Your task to perform on an android device: Search for Mexican restaurants on Maps Image 0: 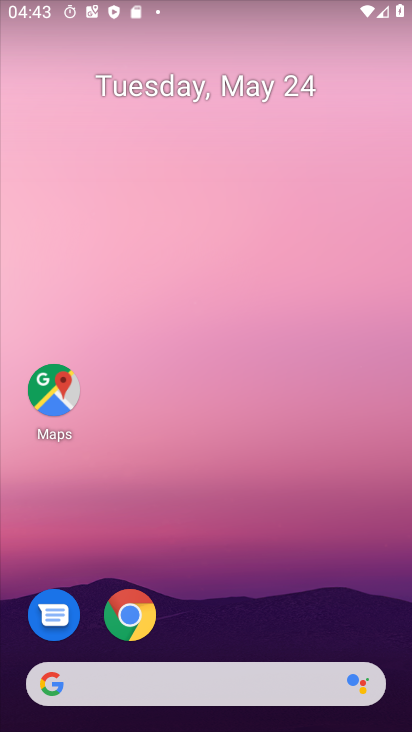
Step 0: click (56, 387)
Your task to perform on an android device: Search for Mexican restaurants on Maps Image 1: 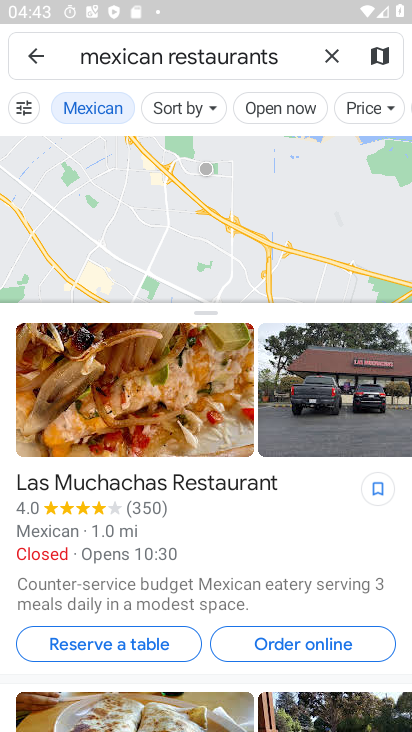
Step 1: task complete